Your task to perform on an android device: What's the weather? Image 0: 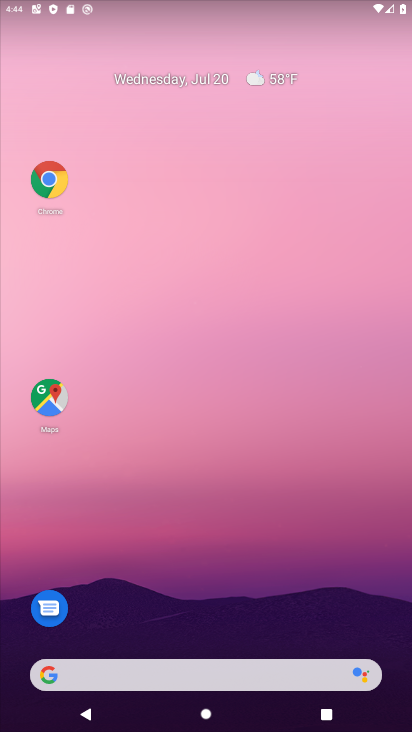
Step 0: click (195, 661)
Your task to perform on an android device: What's the weather? Image 1: 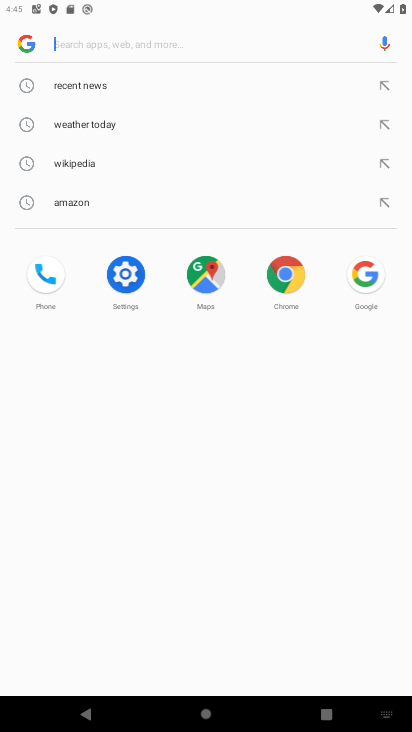
Step 1: click (73, 127)
Your task to perform on an android device: What's the weather? Image 2: 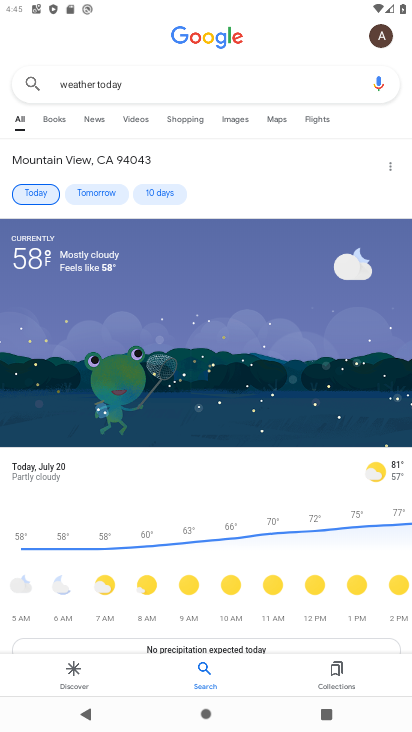
Step 2: task complete